Your task to perform on an android device: check data usage Image 0: 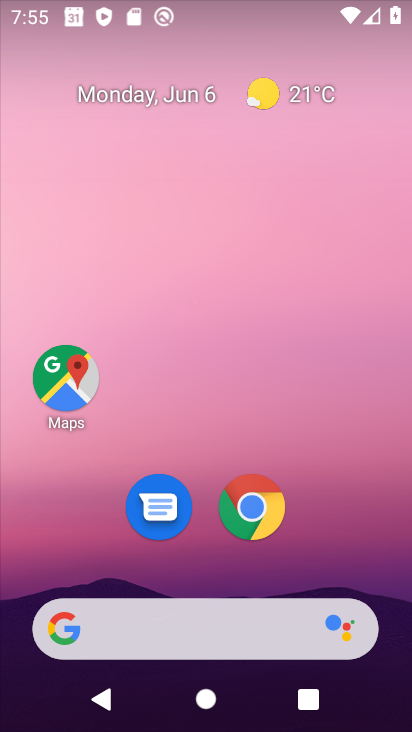
Step 0: drag from (209, 566) to (202, 5)
Your task to perform on an android device: check data usage Image 1: 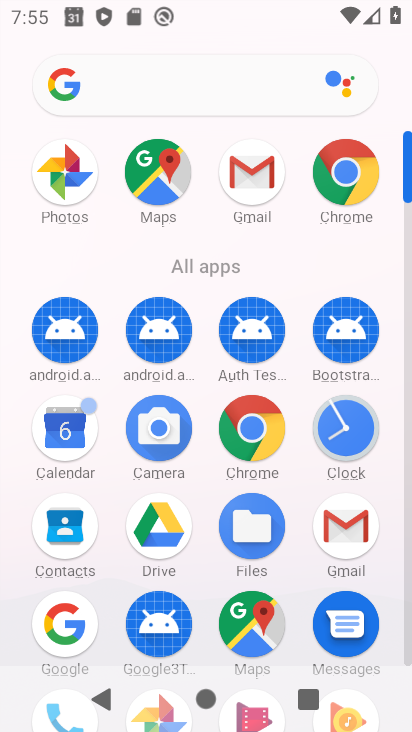
Step 1: drag from (179, 579) to (266, 108)
Your task to perform on an android device: check data usage Image 2: 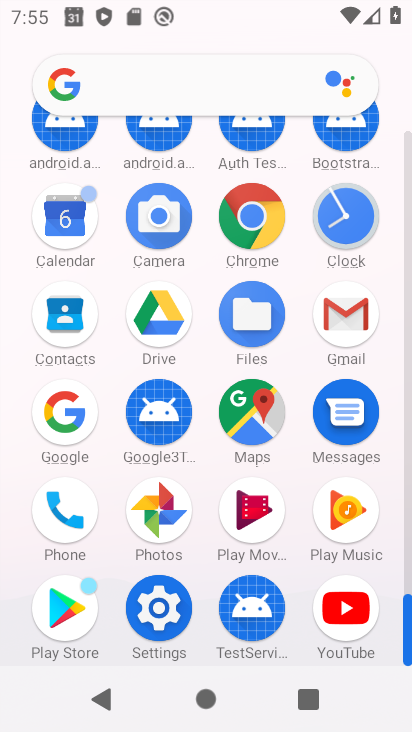
Step 2: drag from (121, 573) to (153, 156)
Your task to perform on an android device: check data usage Image 3: 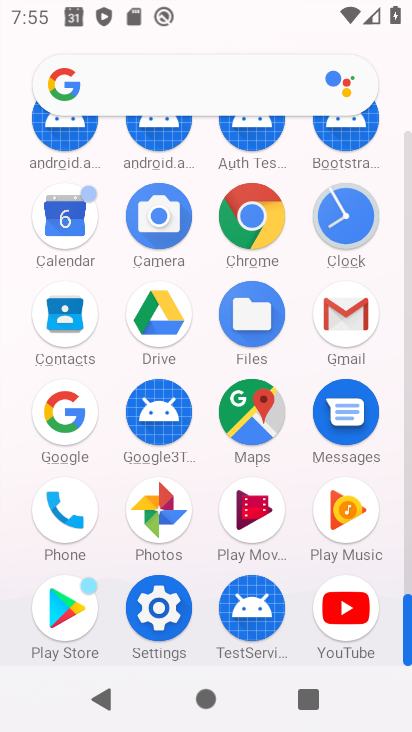
Step 3: drag from (187, 233) to (161, 731)
Your task to perform on an android device: check data usage Image 4: 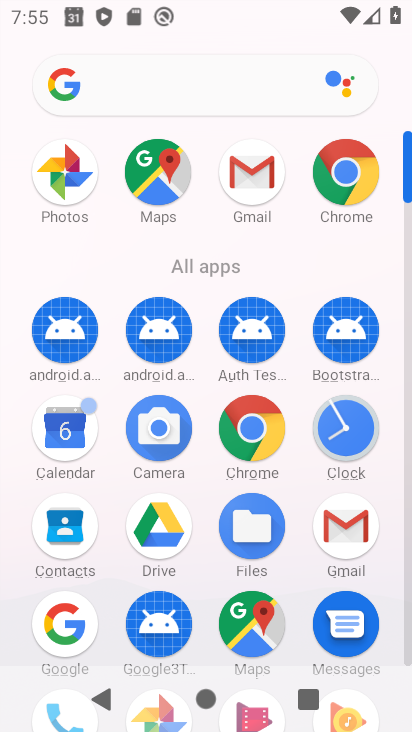
Step 4: drag from (121, 546) to (180, 239)
Your task to perform on an android device: check data usage Image 5: 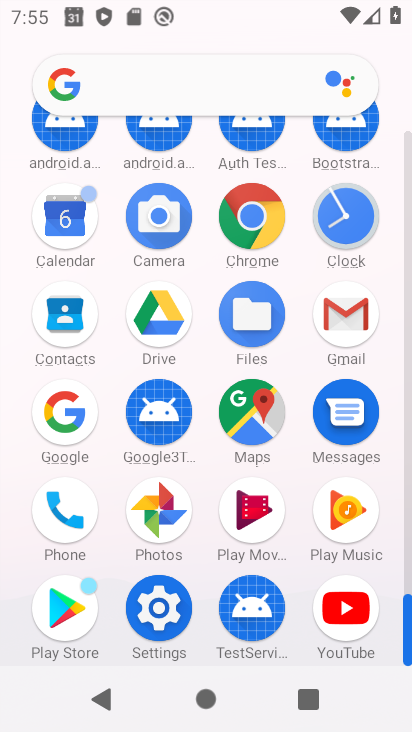
Step 5: click (161, 618)
Your task to perform on an android device: check data usage Image 6: 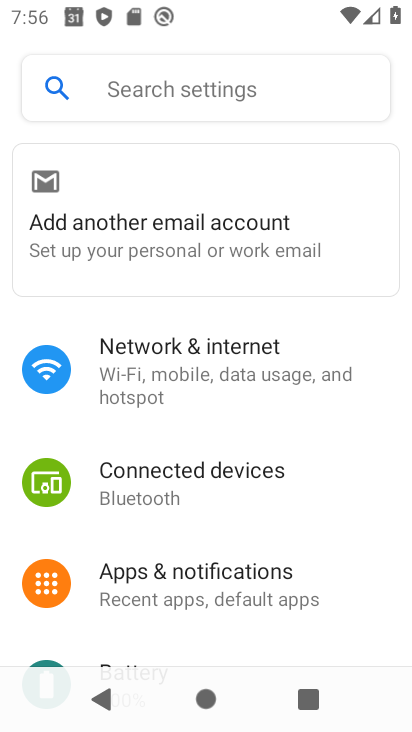
Step 6: drag from (142, 570) to (173, 487)
Your task to perform on an android device: check data usage Image 7: 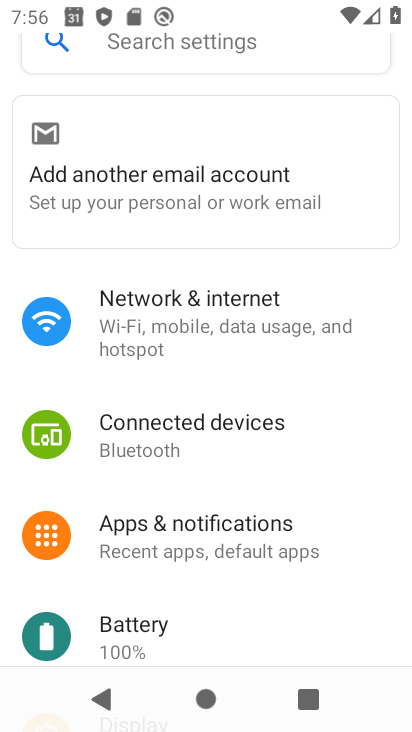
Step 7: drag from (242, 602) to (242, 339)
Your task to perform on an android device: check data usage Image 8: 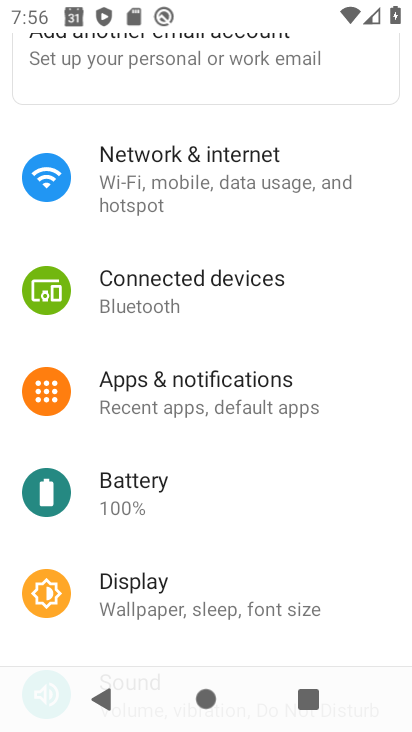
Step 8: drag from (175, 521) to (179, 180)
Your task to perform on an android device: check data usage Image 9: 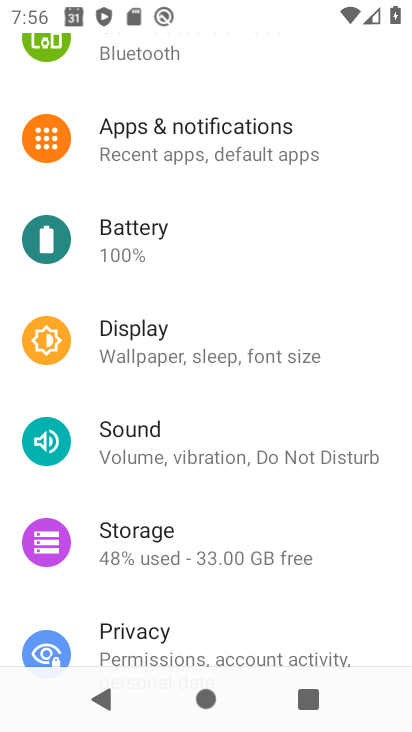
Step 9: drag from (181, 240) to (217, 600)
Your task to perform on an android device: check data usage Image 10: 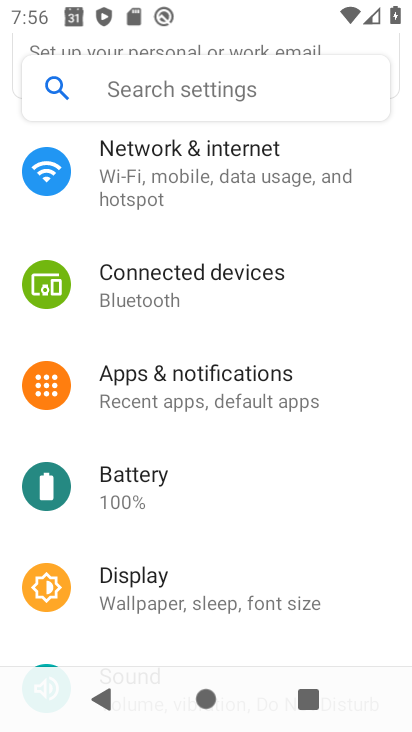
Step 10: drag from (217, 586) to (244, 399)
Your task to perform on an android device: check data usage Image 11: 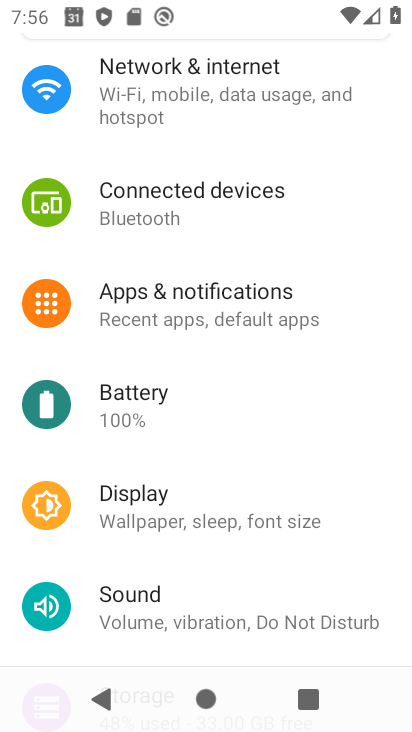
Step 11: drag from (269, 166) to (269, 316)
Your task to perform on an android device: check data usage Image 12: 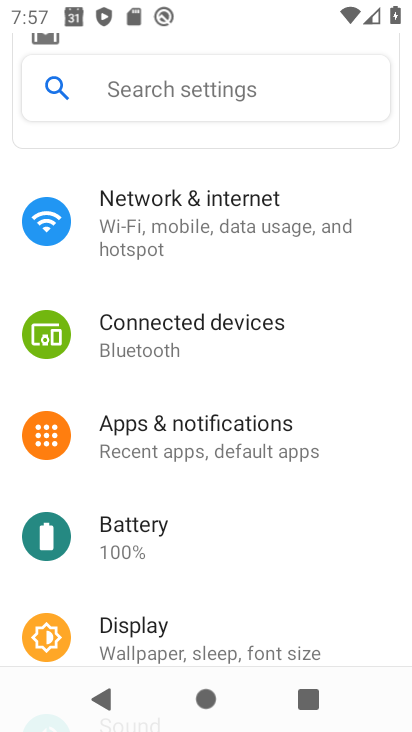
Step 12: drag from (164, 638) to (200, 337)
Your task to perform on an android device: check data usage Image 13: 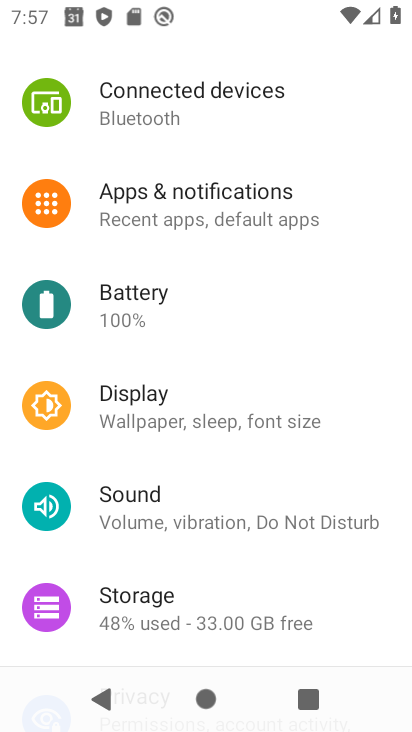
Step 13: drag from (194, 619) to (249, 256)
Your task to perform on an android device: check data usage Image 14: 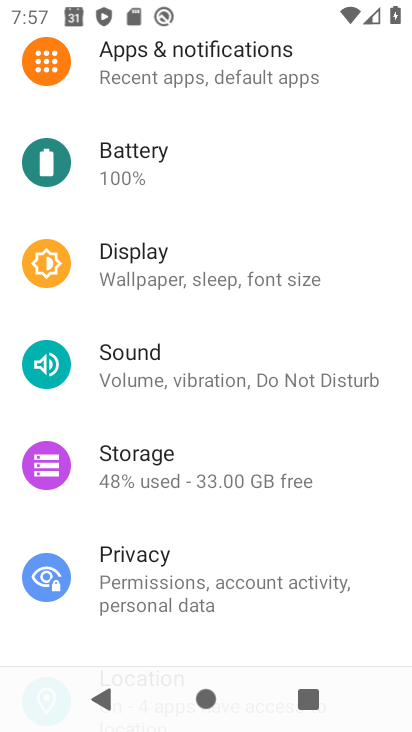
Step 14: drag from (195, 256) to (189, 680)
Your task to perform on an android device: check data usage Image 15: 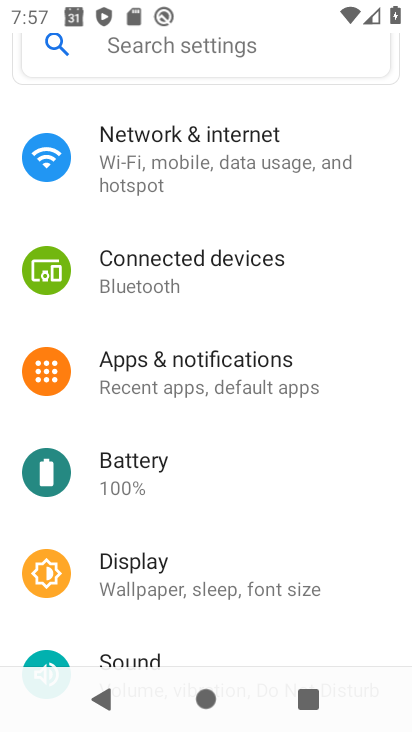
Step 15: drag from (198, 292) to (145, 699)
Your task to perform on an android device: check data usage Image 16: 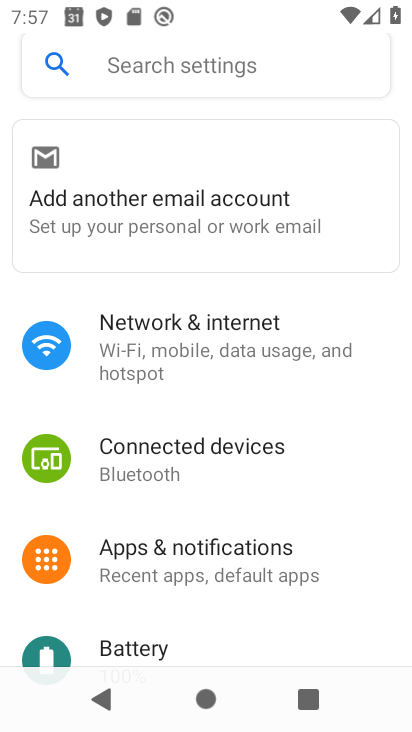
Step 16: click (175, 348)
Your task to perform on an android device: check data usage Image 17: 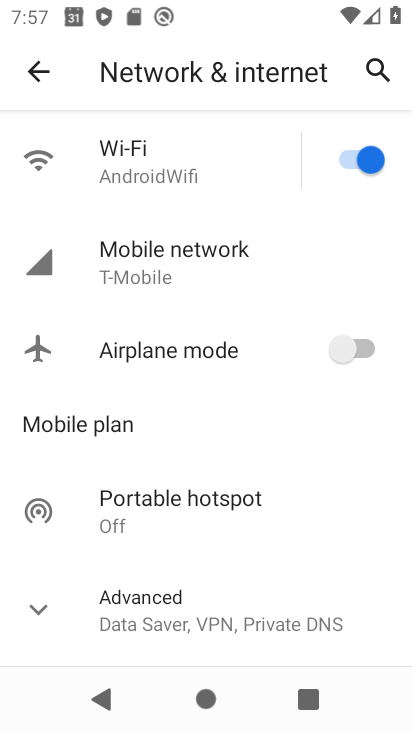
Step 17: click (207, 294)
Your task to perform on an android device: check data usage Image 18: 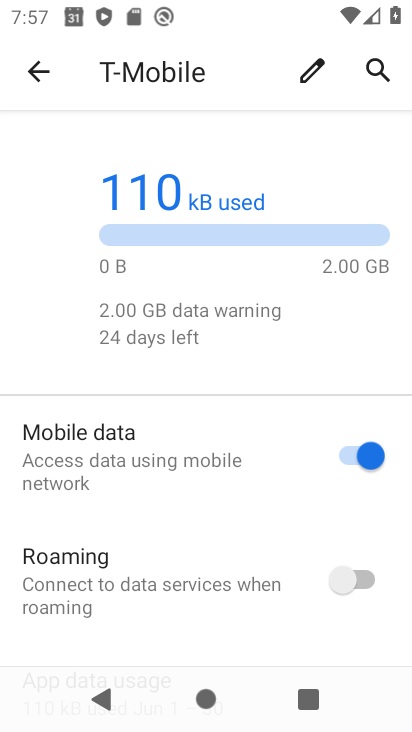
Step 18: task complete